Your task to perform on an android device: Search for a new perfume Image 0: 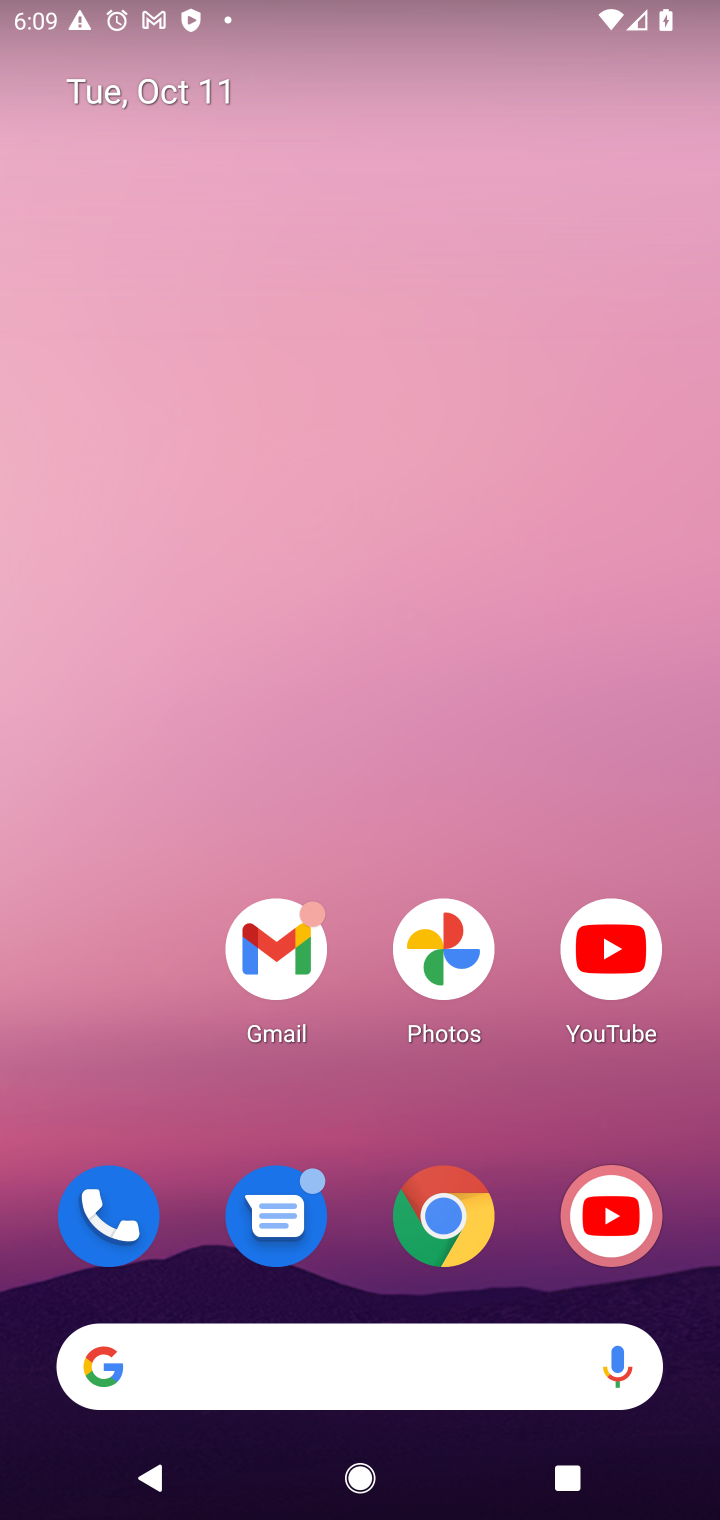
Step 0: click (414, 1252)
Your task to perform on an android device: Search for a new perfume Image 1: 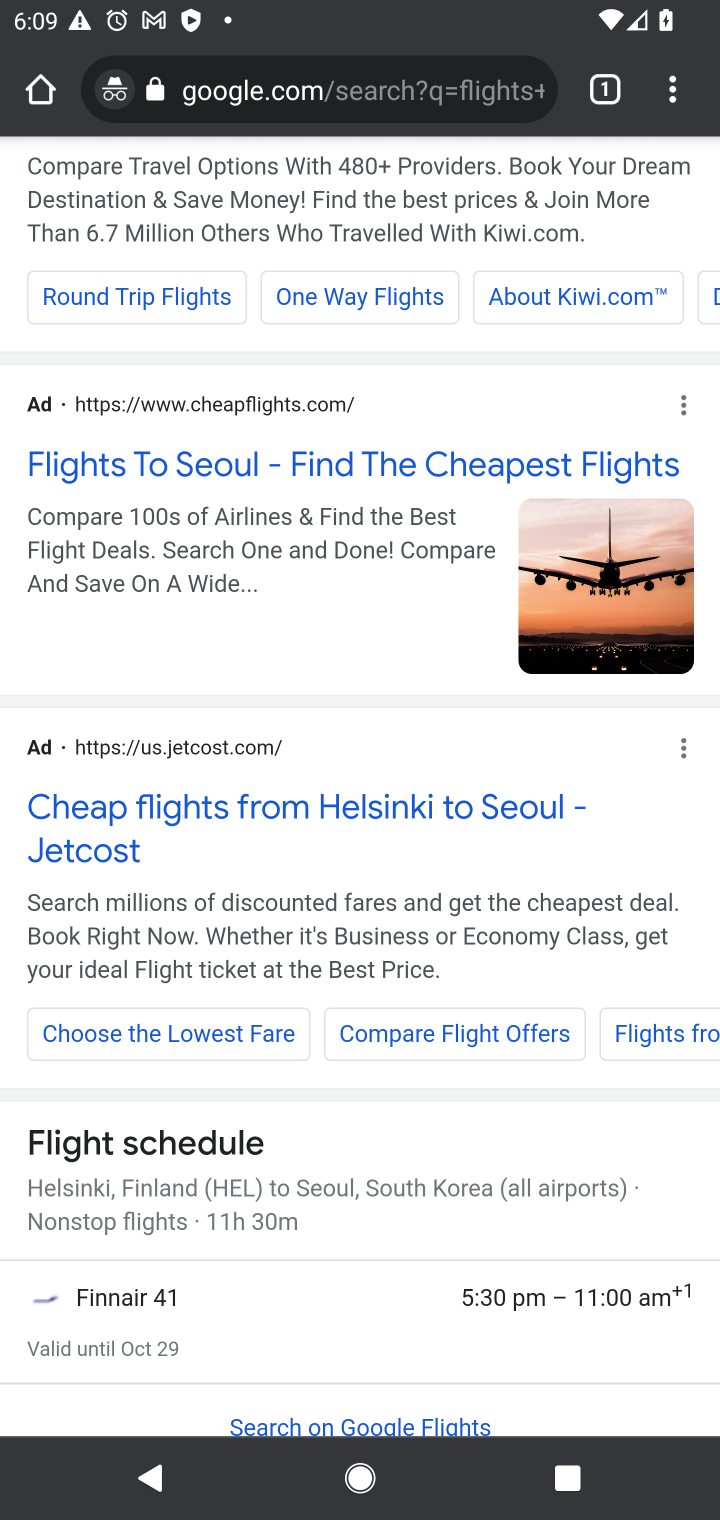
Step 1: click (360, 108)
Your task to perform on an android device: Search for a new perfume Image 2: 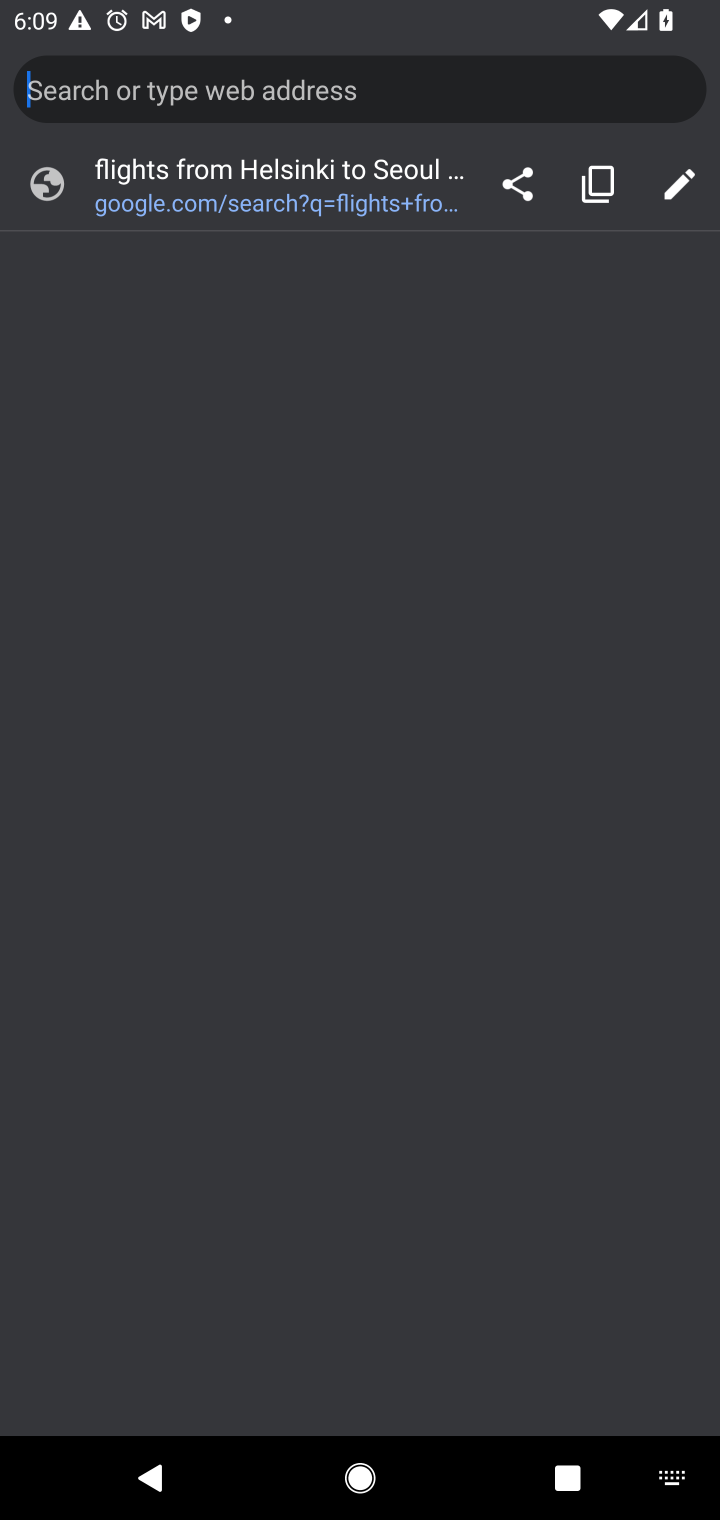
Step 2: type "new perfume"
Your task to perform on an android device: Search for a new perfume Image 3: 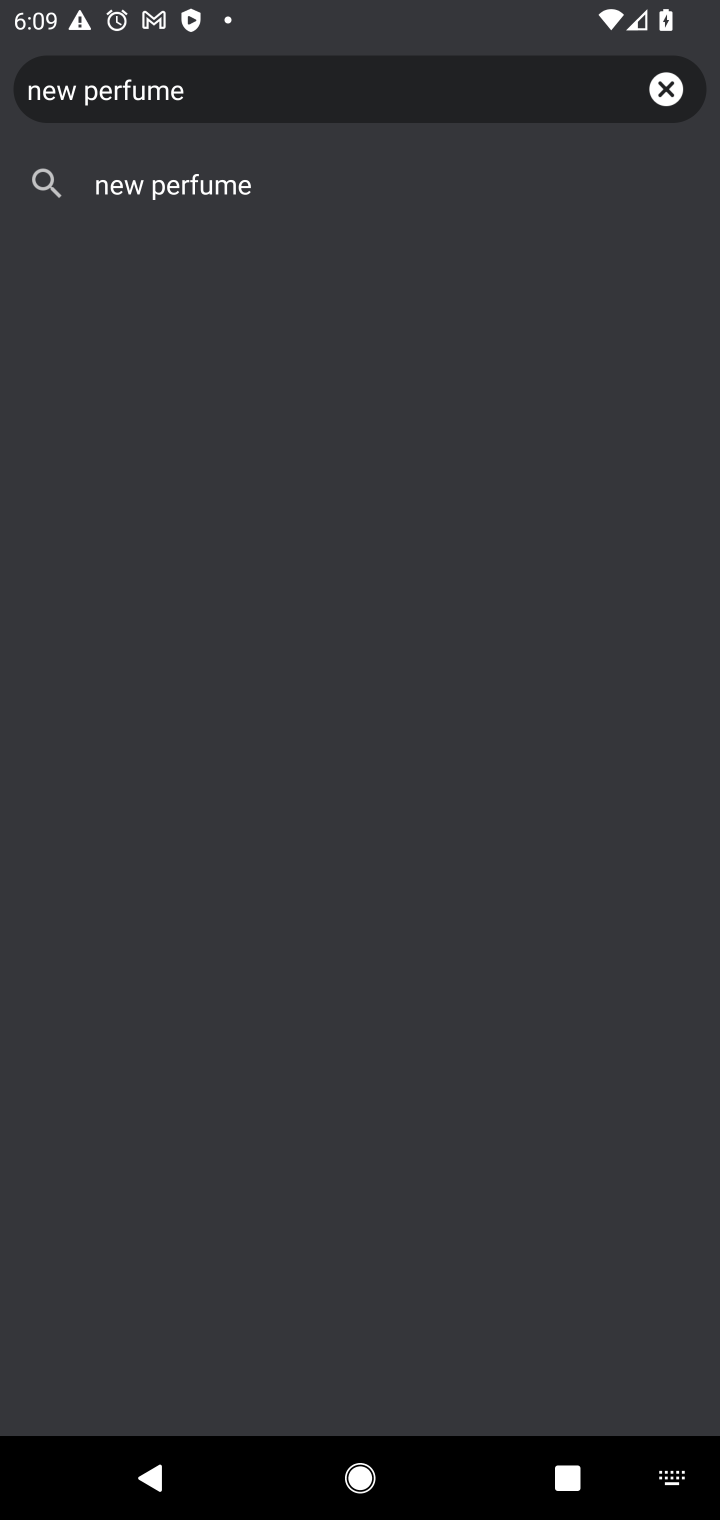
Step 3: press enter
Your task to perform on an android device: Search for a new perfume Image 4: 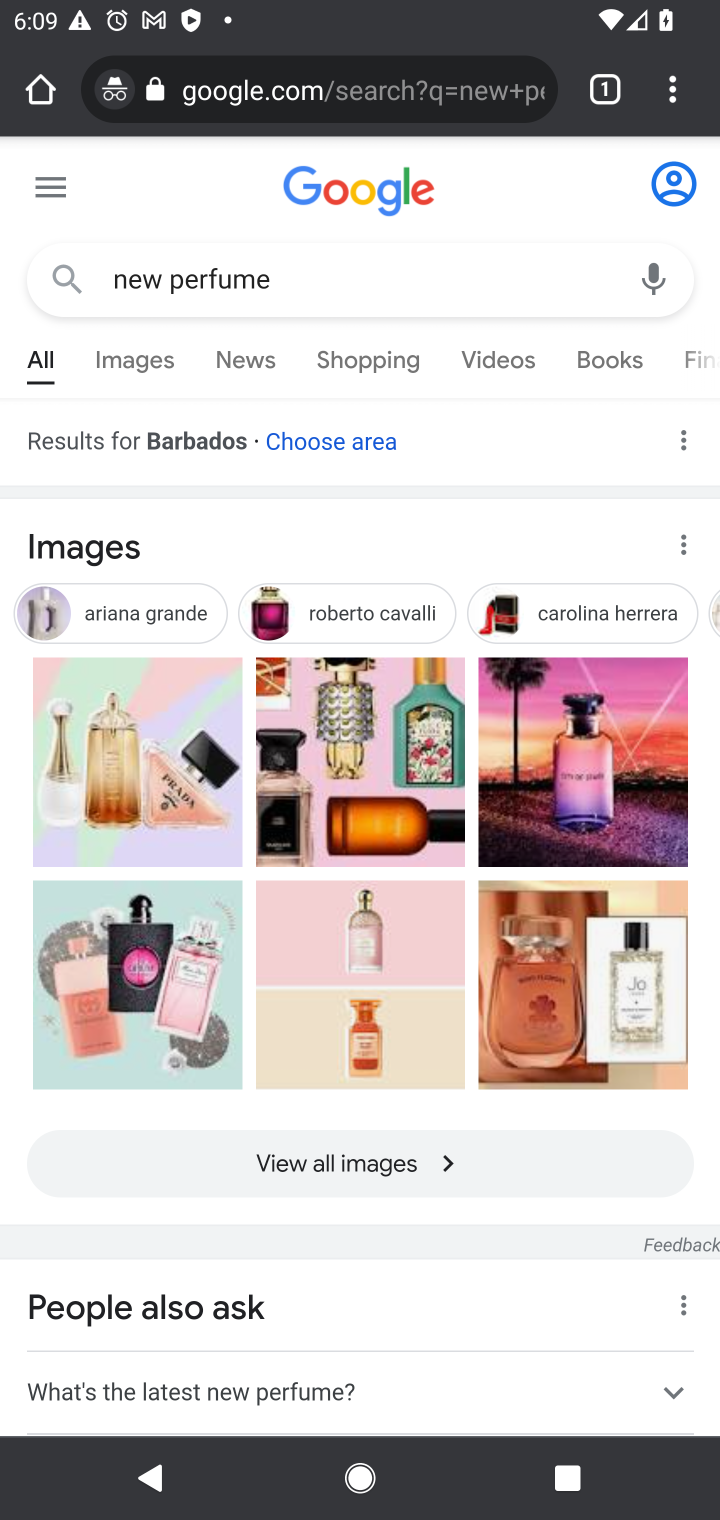
Step 4: press enter
Your task to perform on an android device: Search for a new perfume Image 5: 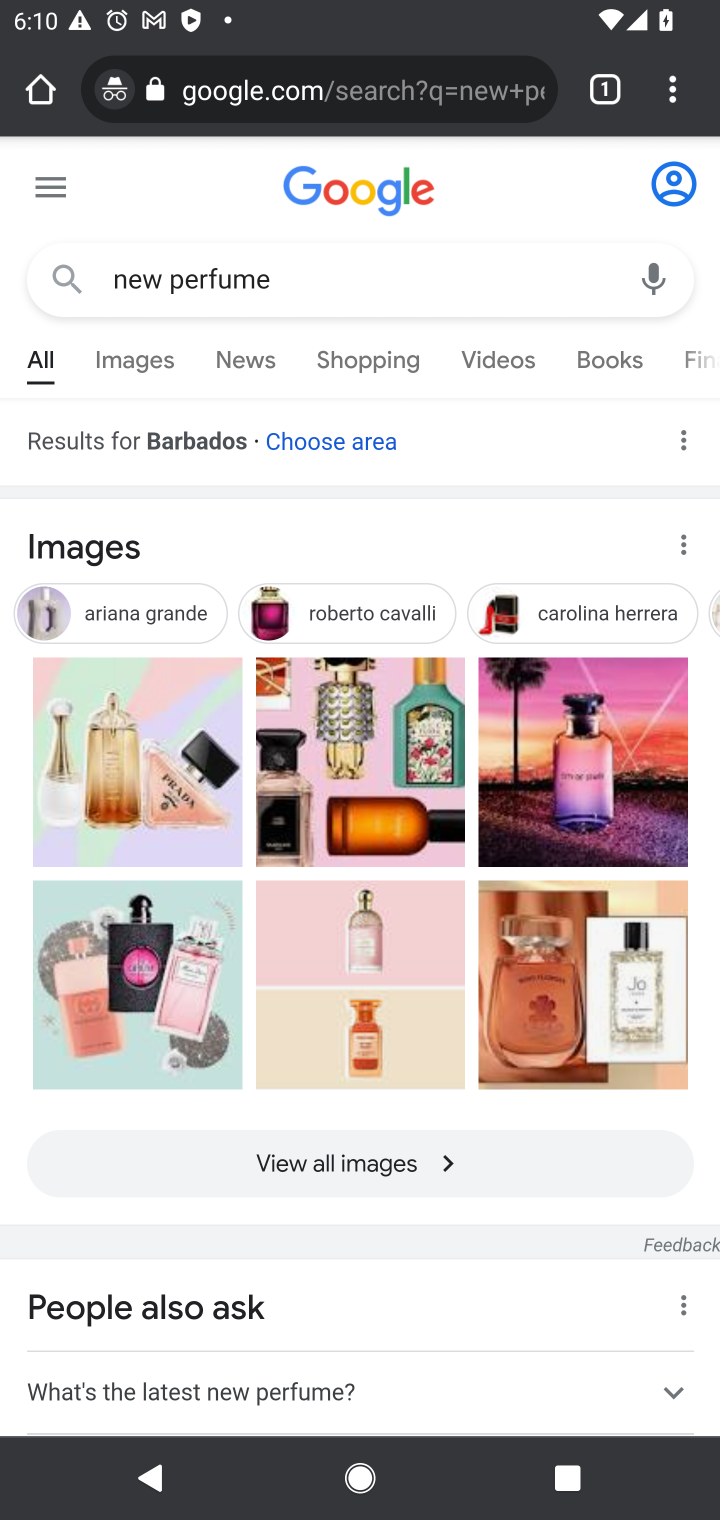
Step 5: task complete